Your task to perform on an android device: delete the emails in spam in the gmail app Image 0: 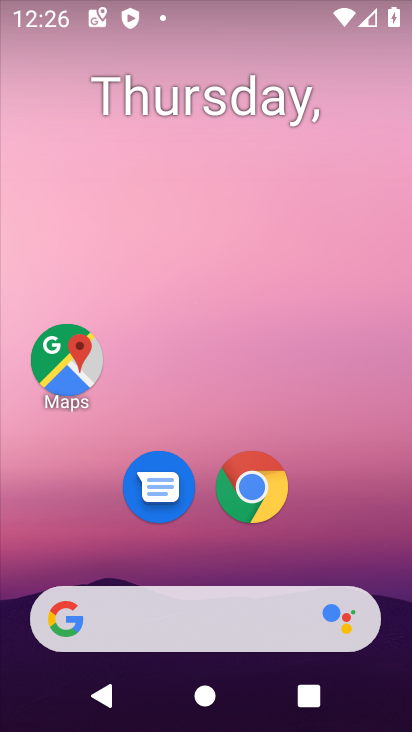
Step 0: drag from (372, 561) to (278, 16)
Your task to perform on an android device: delete the emails in spam in the gmail app Image 1: 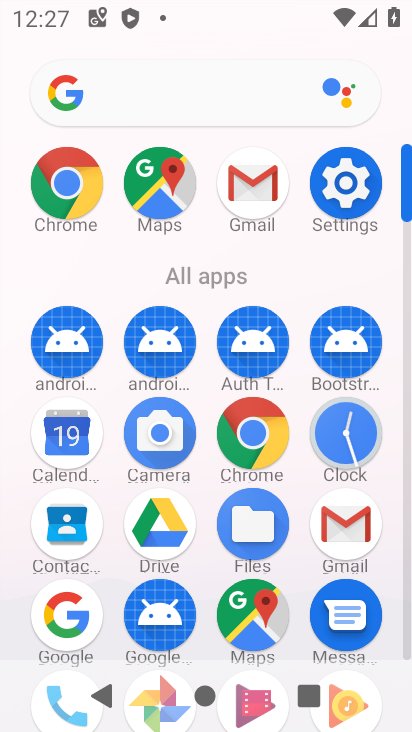
Step 1: click (271, 211)
Your task to perform on an android device: delete the emails in spam in the gmail app Image 2: 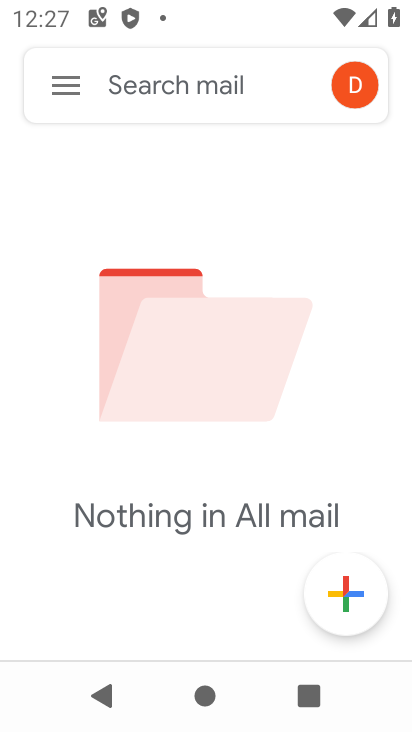
Step 2: click (65, 103)
Your task to perform on an android device: delete the emails in spam in the gmail app Image 3: 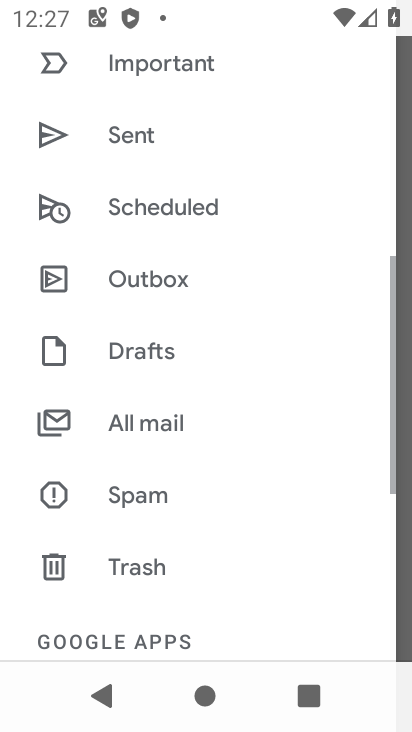
Step 3: click (258, 488)
Your task to perform on an android device: delete the emails in spam in the gmail app Image 4: 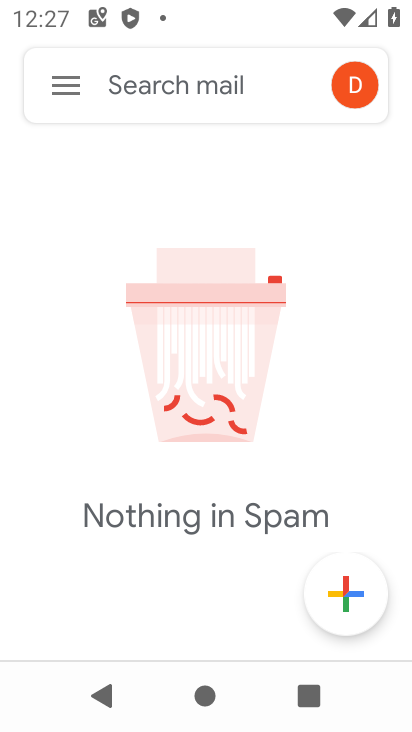
Step 4: task complete